Your task to perform on an android device: Go to eBay Image 0: 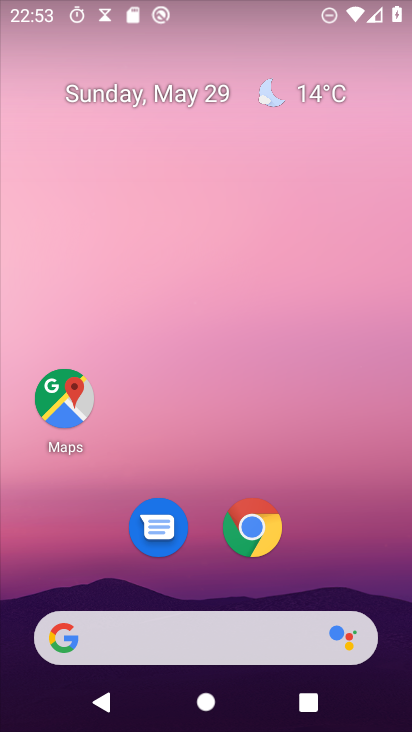
Step 0: click (246, 538)
Your task to perform on an android device: Go to eBay Image 1: 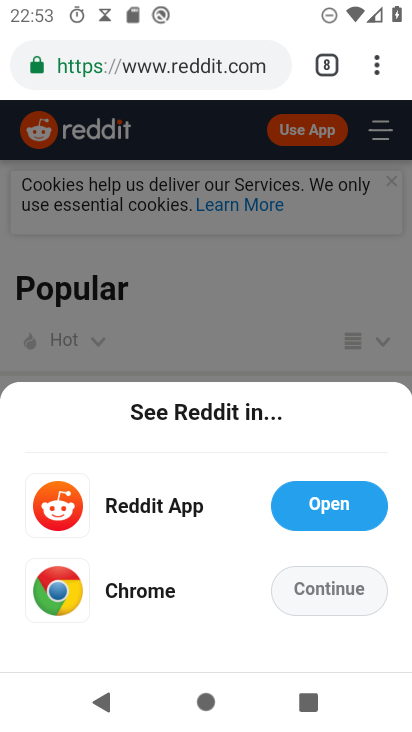
Step 1: drag from (379, 65) to (233, 142)
Your task to perform on an android device: Go to eBay Image 2: 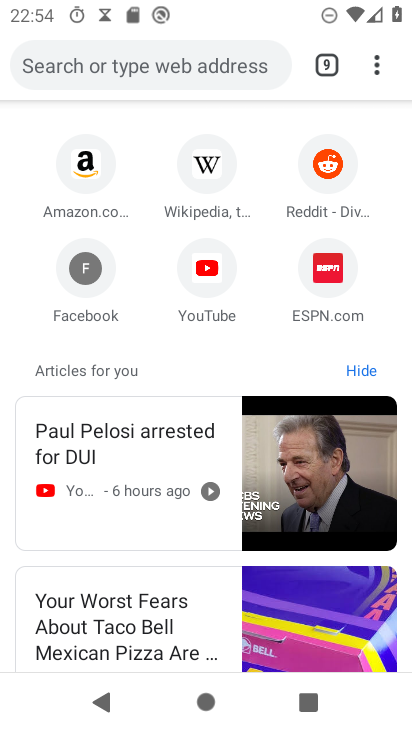
Step 2: click (160, 63)
Your task to perform on an android device: Go to eBay Image 3: 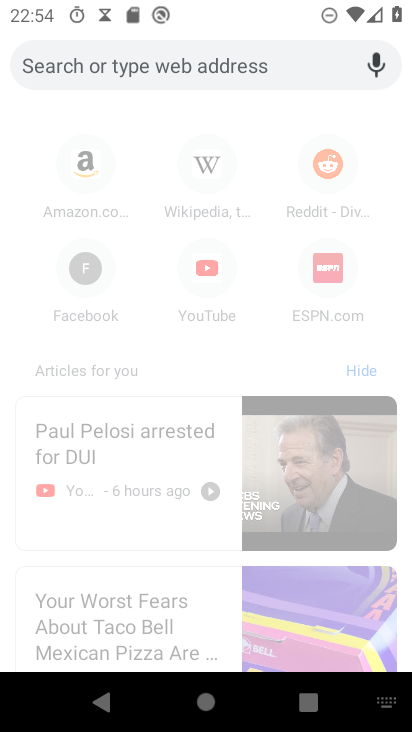
Step 3: type "ebay"
Your task to perform on an android device: Go to eBay Image 4: 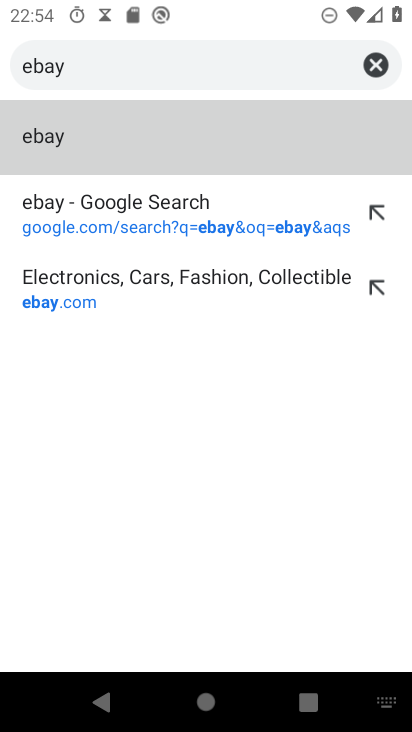
Step 4: click (89, 145)
Your task to perform on an android device: Go to eBay Image 5: 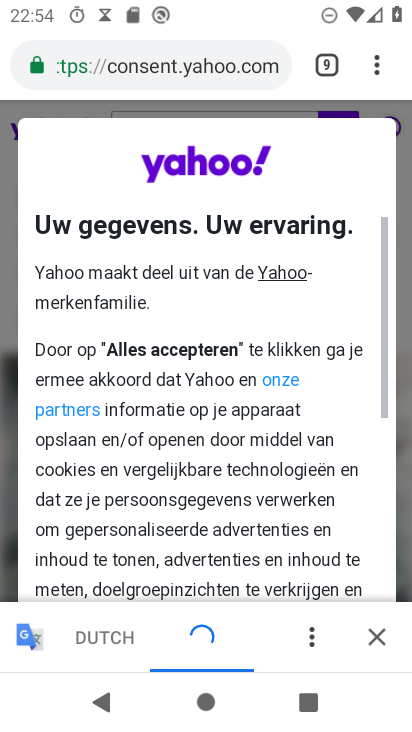
Step 5: drag from (241, 527) to (340, 93)
Your task to perform on an android device: Go to eBay Image 6: 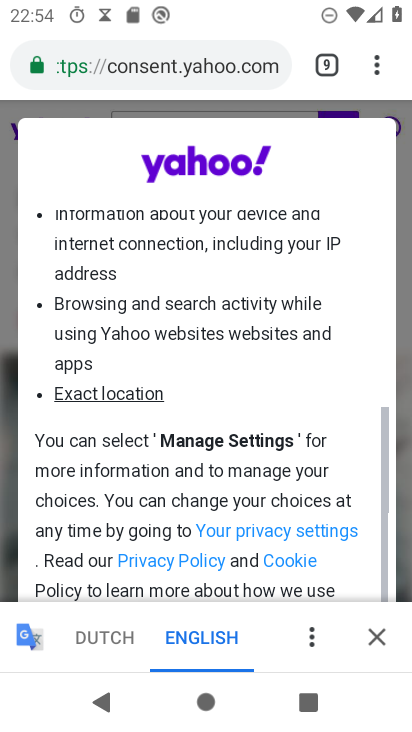
Step 6: drag from (246, 563) to (325, 129)
Your task to perform on an android device: Go to eBay Image 7: 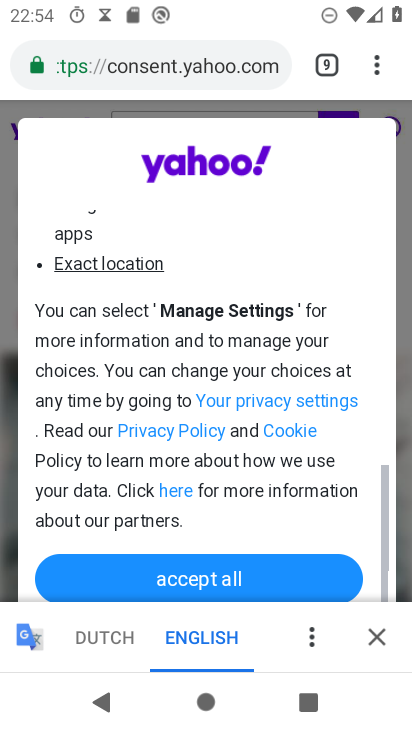
Step 7: click (204, 587)
Your task to perform on an android device: Go to eBay Image 8: 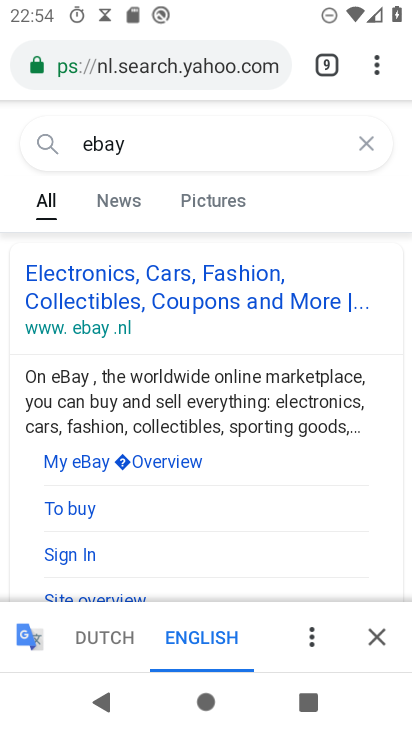
Step 8: click (174, 292)
Your task to perform on an android device: Go to eBay Image 9: 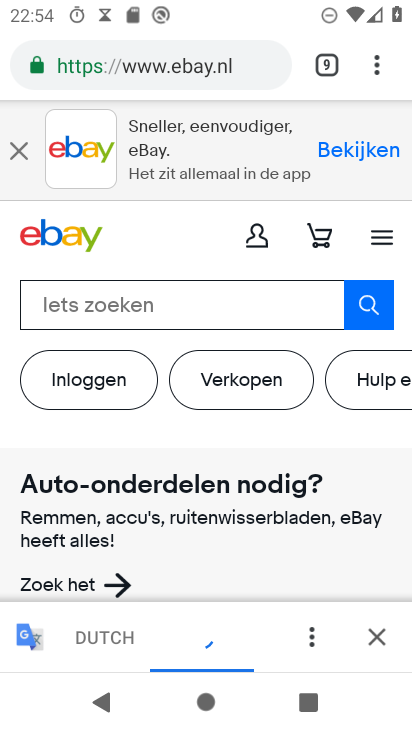
Step 9: drag from (192, 566) to (294, 195)
Your task to perform on an android device: Go to eBay Image 10: 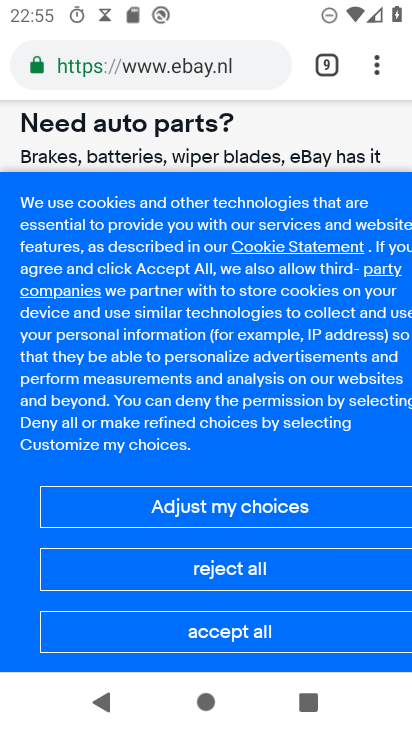
Step 10: click (231, 635)
Your task to perform on an android device: Go to eBay Image 11: 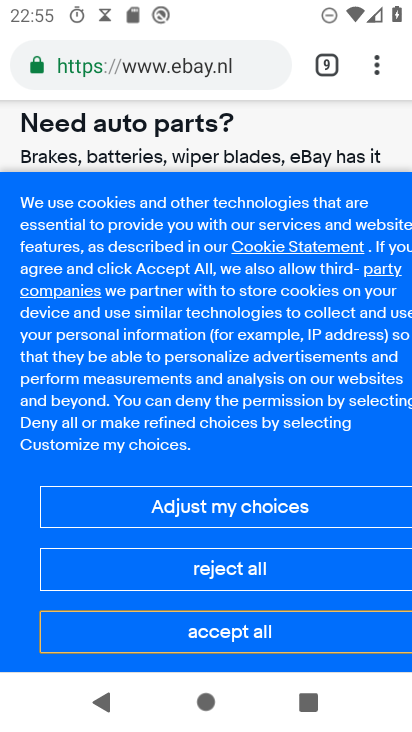
Step 11: click (234, 635)
Your task to perform on an android device: Go to eBay Image 12: 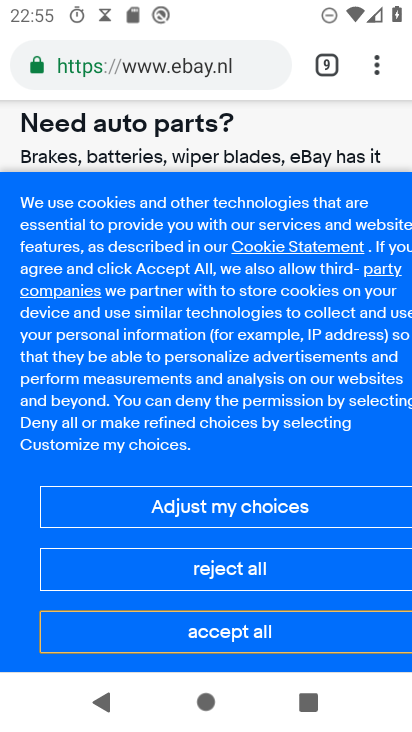
Step 12: drag from (133, 395) to (277, 38)
Your task to perform on an android device: Go to eBay Image 13: 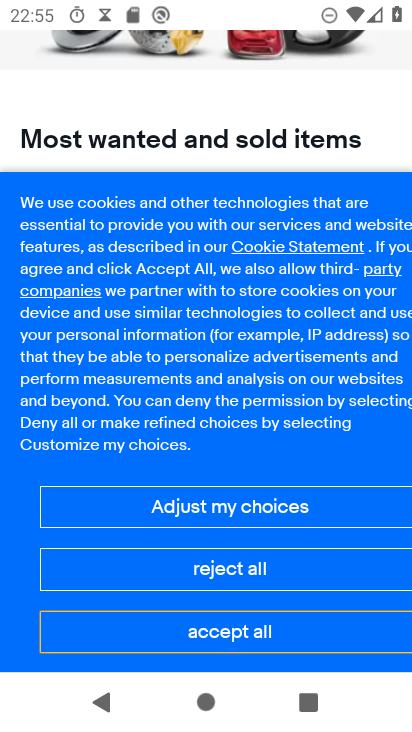
Step 13: click (238, 634)
Your task to perform on an android device: Go to eBay Image 14: 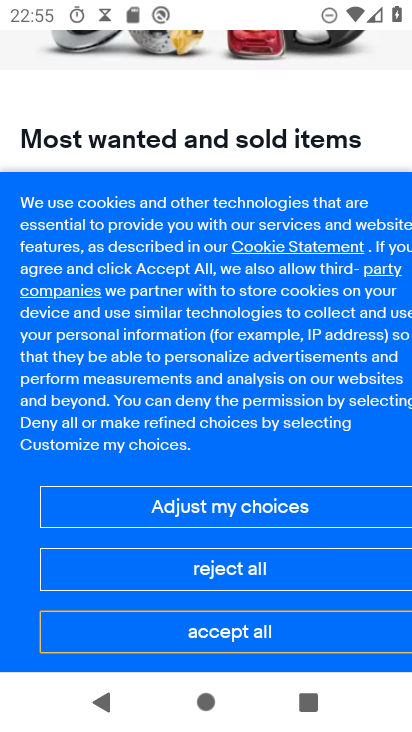
Step 14: click (221, 640)
Your task to perform on an android device: Go to eBay Image 15: 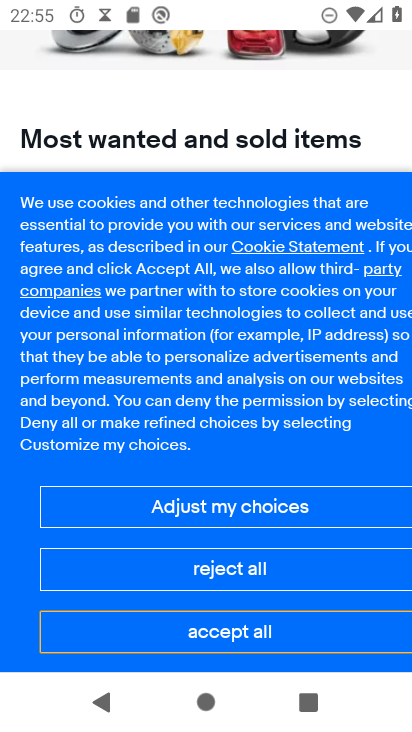
Step 15: task complete